Your task to perform on an android device: change notification settings in the gmail app Image 0: 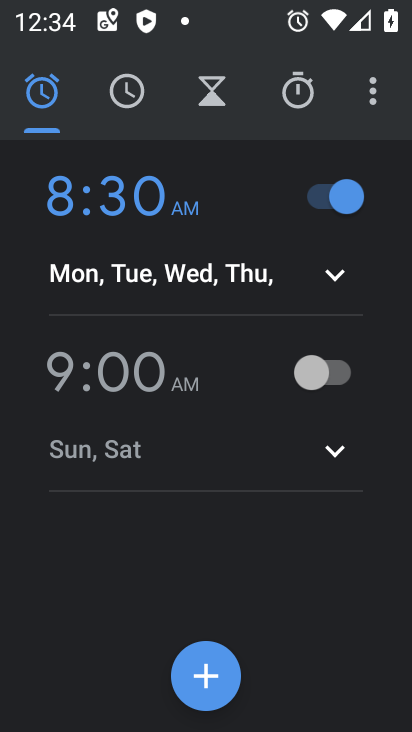
Step 0: press home button
Your task to perform on an android device: change notification settings in the gmail app Image 1: 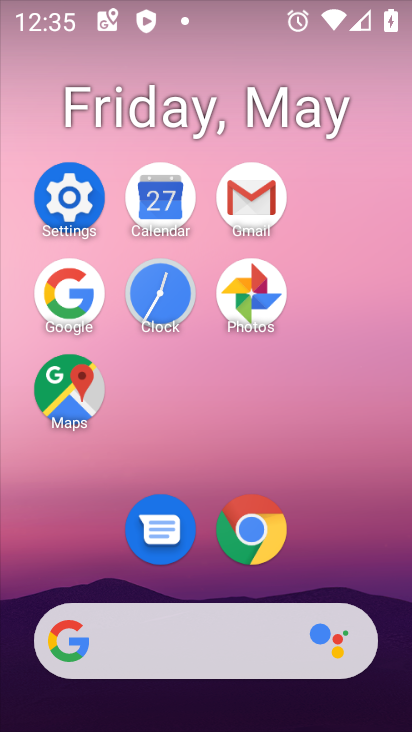
Step 1: click (247, 205)
Your task to perform on an android device: change notification settings in the gmail app Image 2: 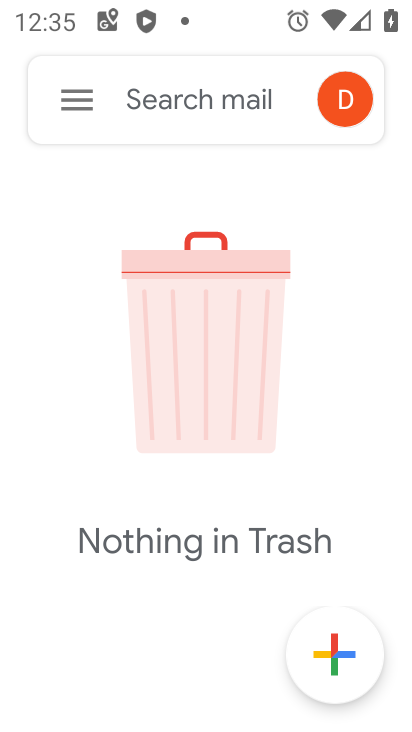
Step 2: press home button
Your task to perform on an android device: change notification settings in the gmail app Image 3: 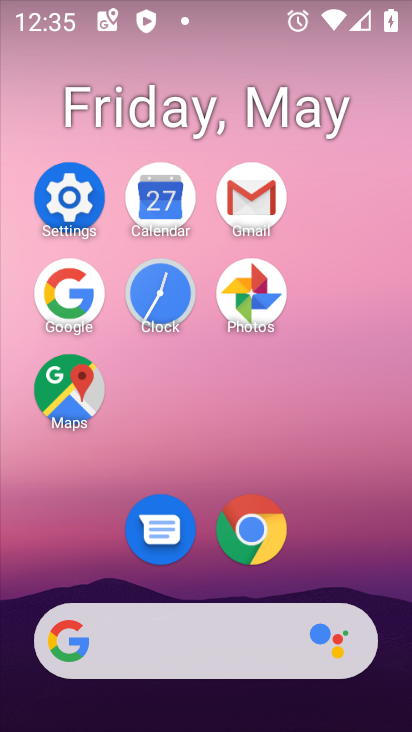
Step 3: click (257, 220)
Your task to perform on an android device: change notification settings in the gmail app Image 4: 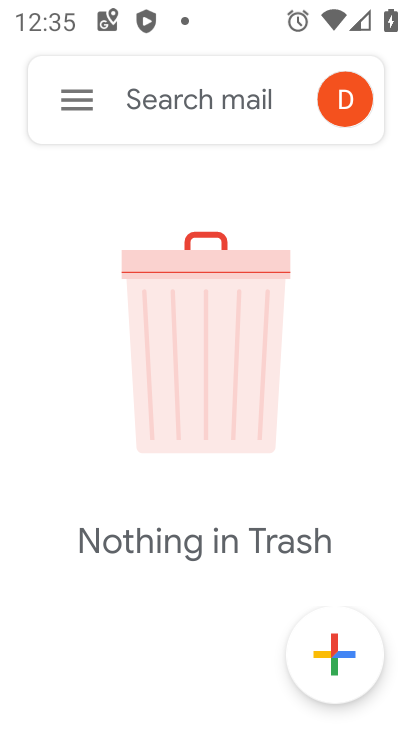
Step 4: click (83, 107)
Your task to perform on an android device: change notification settings in the gmail app Image 5: 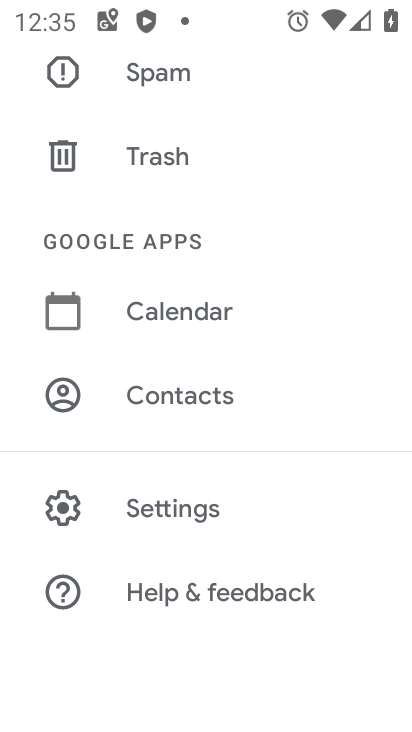
Step 5: click (194, 490)
Your task to perform on an android device: change notification settings in the gmail app Image 6: 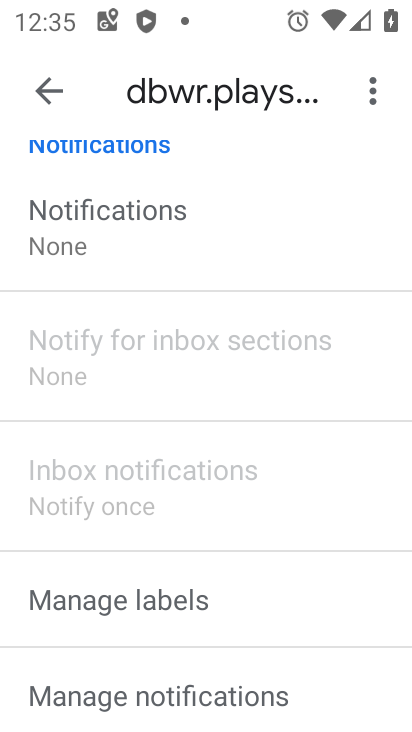
Step 6: click (176, 235)
Your task to perform on an android device: change notification settings in the gmail app Image 7: 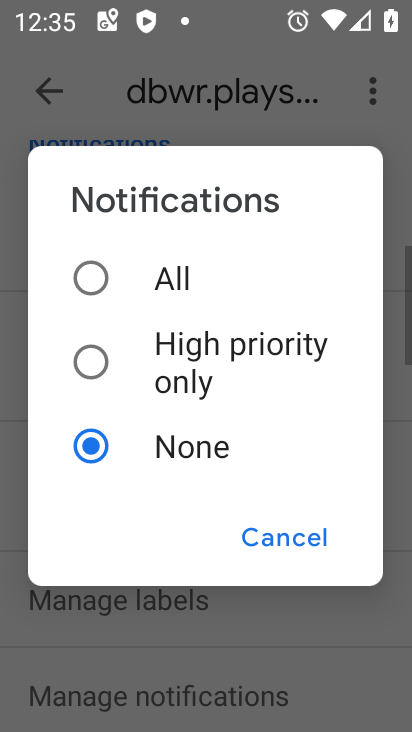
Step 7: click (185, 276)
Your task to perform on an android device: change notification settings in the gmail app Image 8: 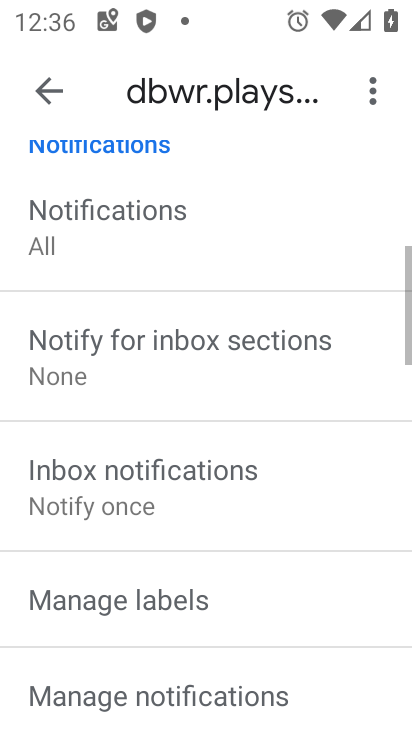
Step 8: task complete